Your task to perform on an android device: Open Google Maps Image 0: 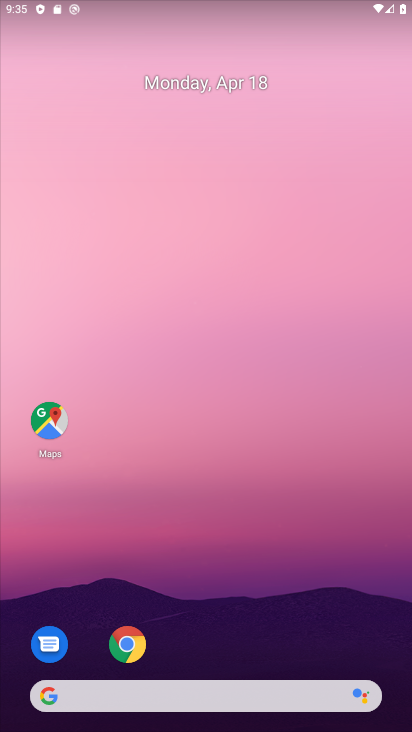
Step 0: click (40, 409)
Your task to perform on an android device: Open Google Maps Image 1: 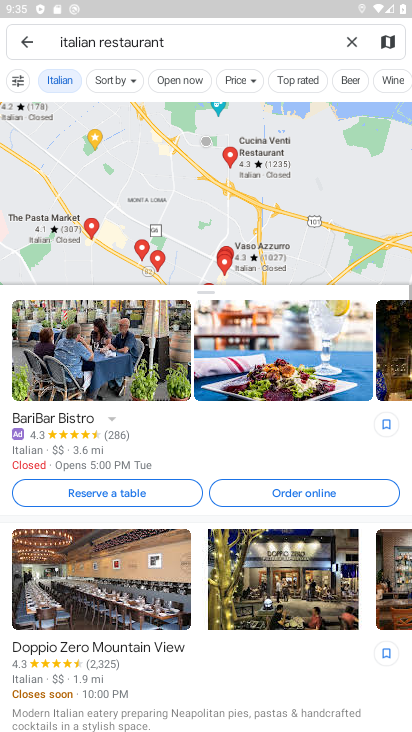
Step 1: click (25, 41)
Your task to perform on an android device: Open Google Maps Image 2: 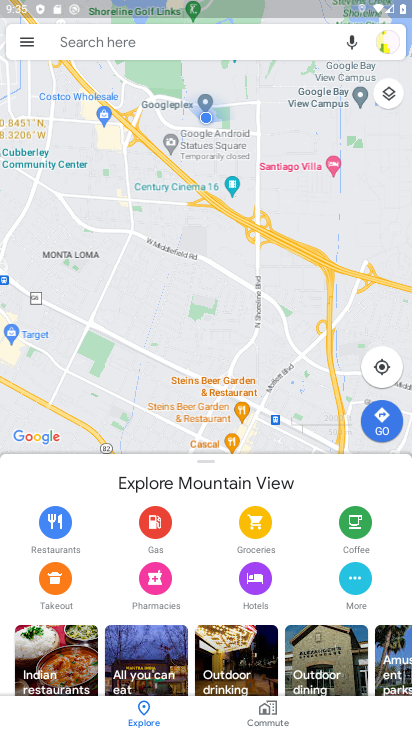
Step 2: task complete